Your task to perform on an android device: What's the news today? Image 0: 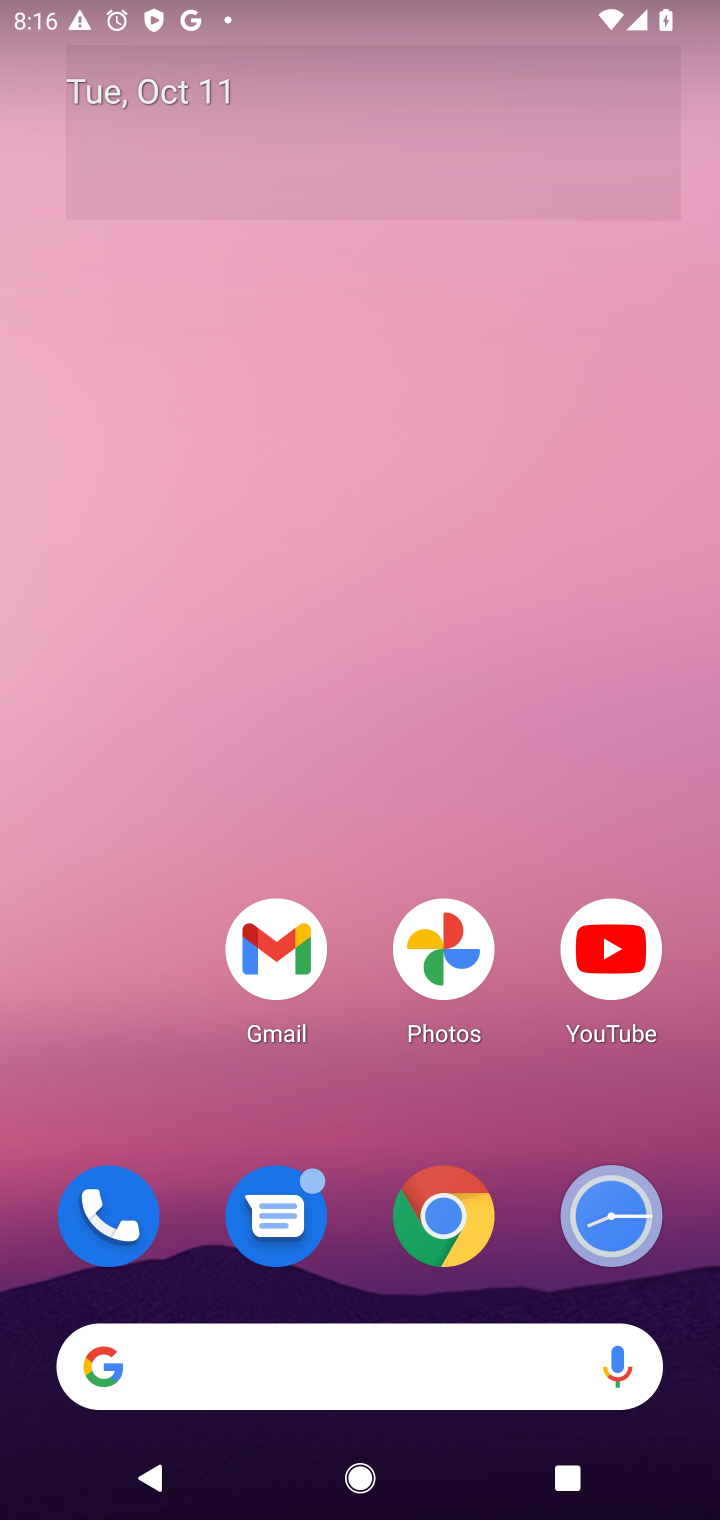
Step 0: click (434, 1238)
Your task to perform on an android device: What's the news today? Image 1: 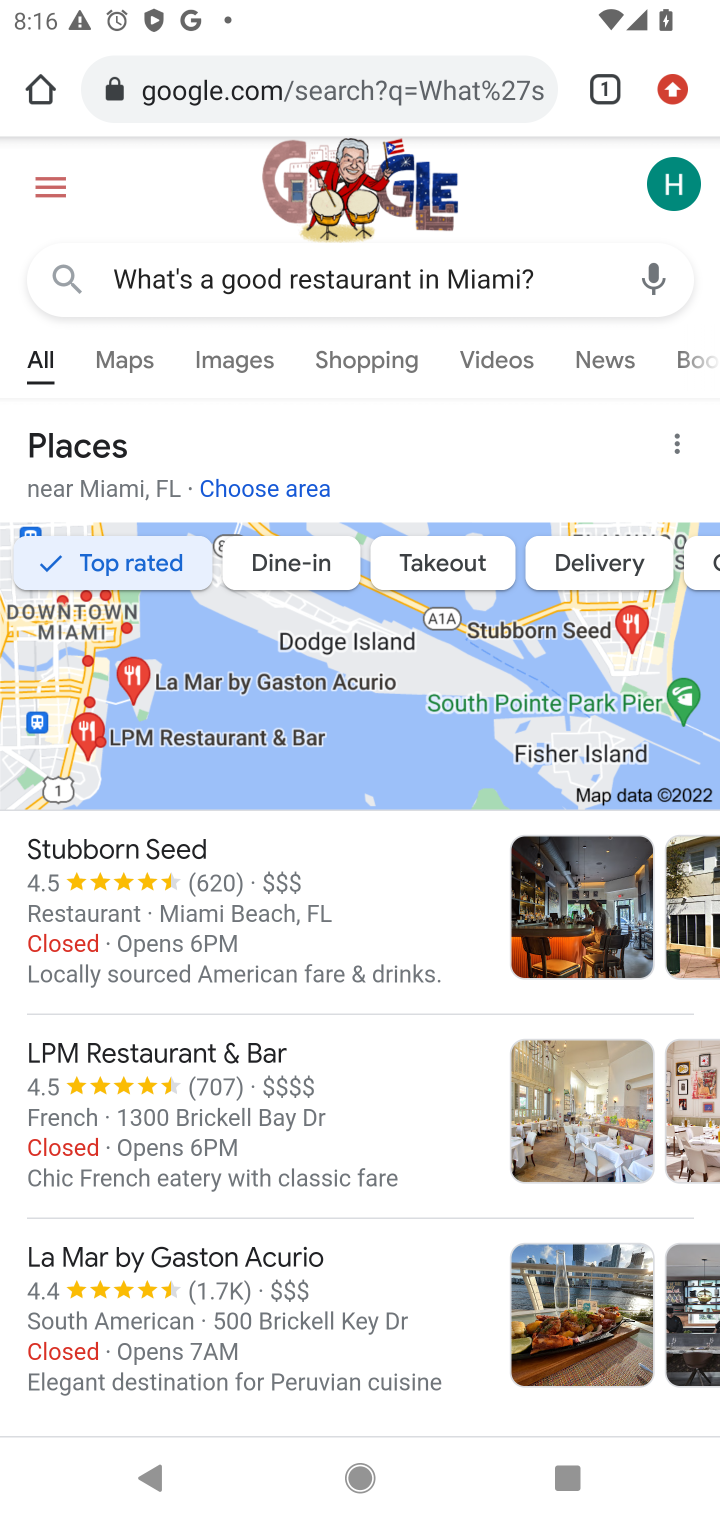
Step 1: click (569, 247)
Your task to perform on an android device: What's the news today? Image 2: 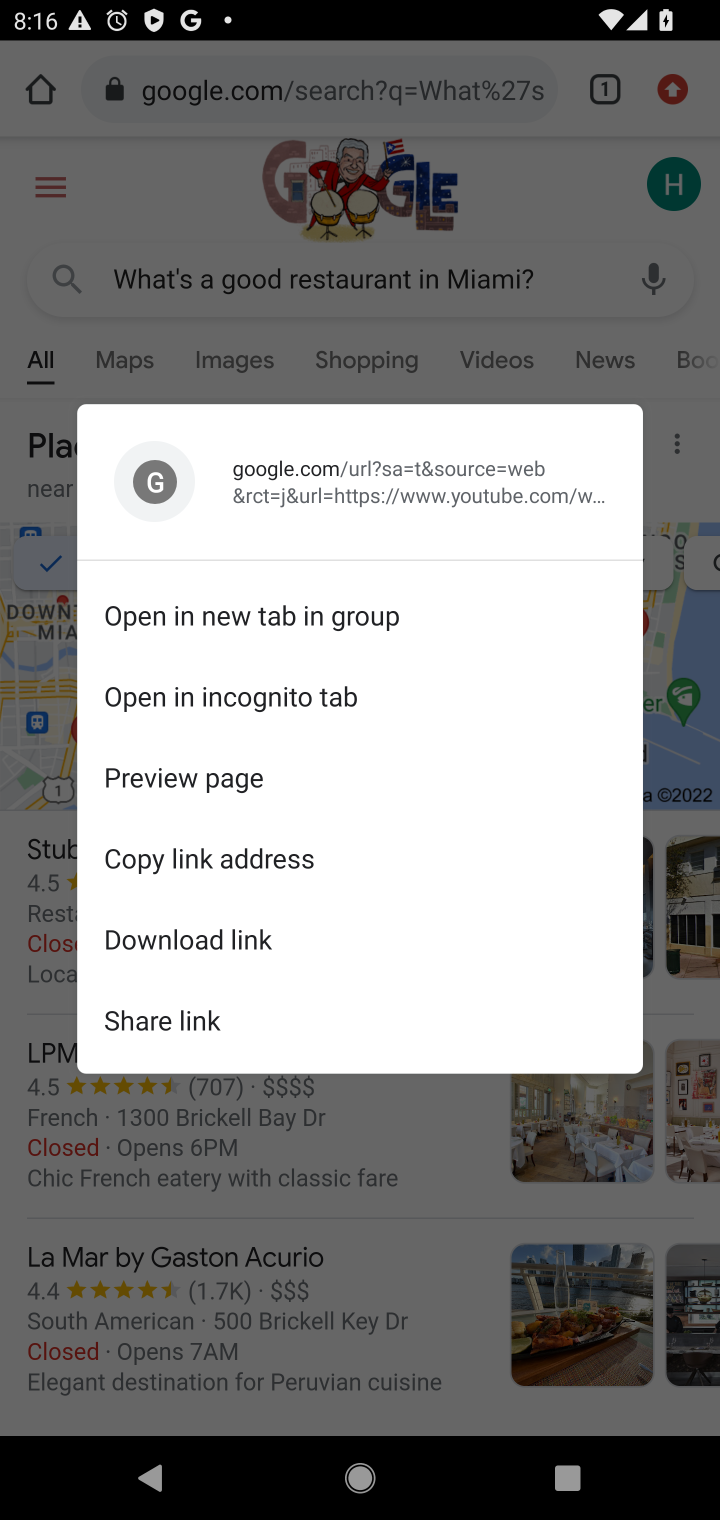
Step 2: click (578, 288)
Your task to perform on an android device: What's the news today? Image 3: 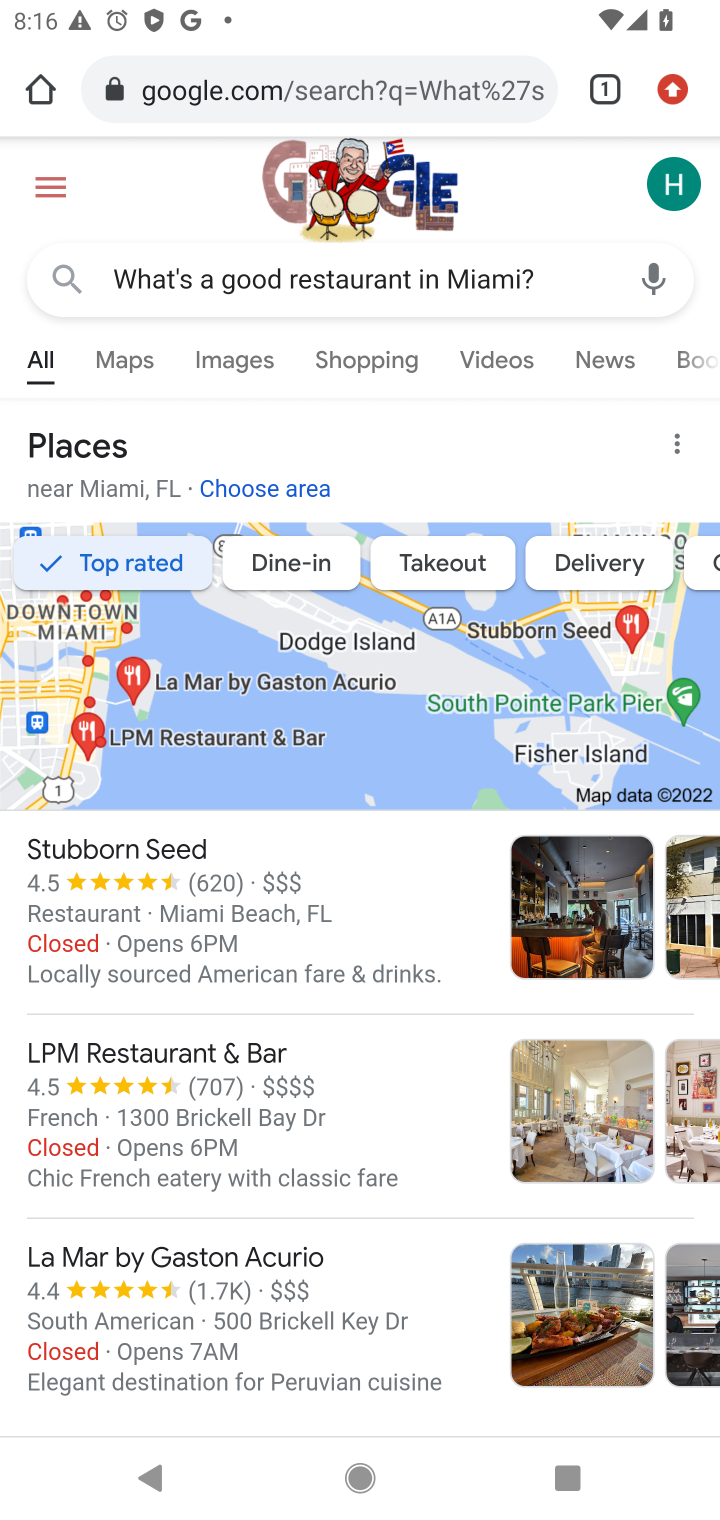
Step 3: click (578, 288)
Your task to perform on an android device: What's the news today? Image 4: 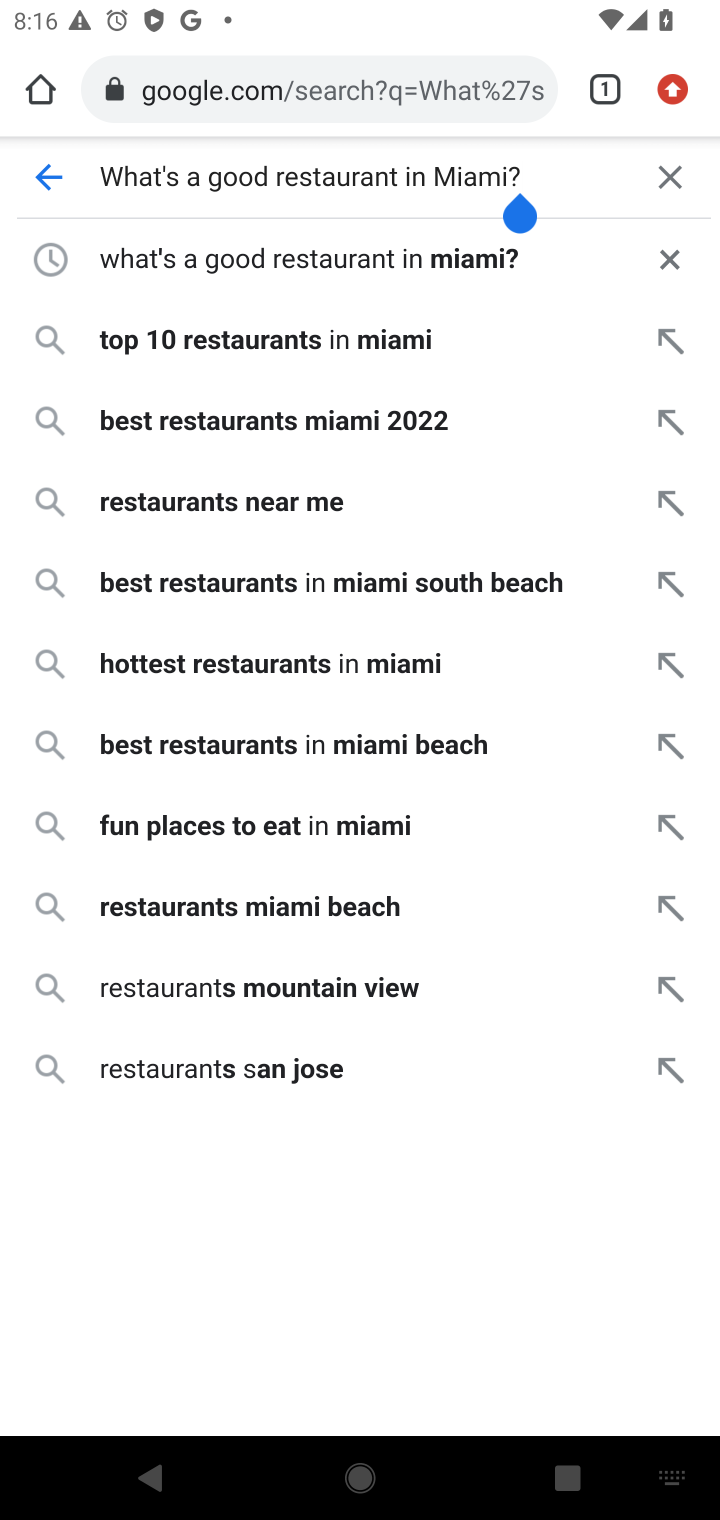
Step 4: click (675, 183)
Your task to perform on an android device: What's the news today? Image 5: 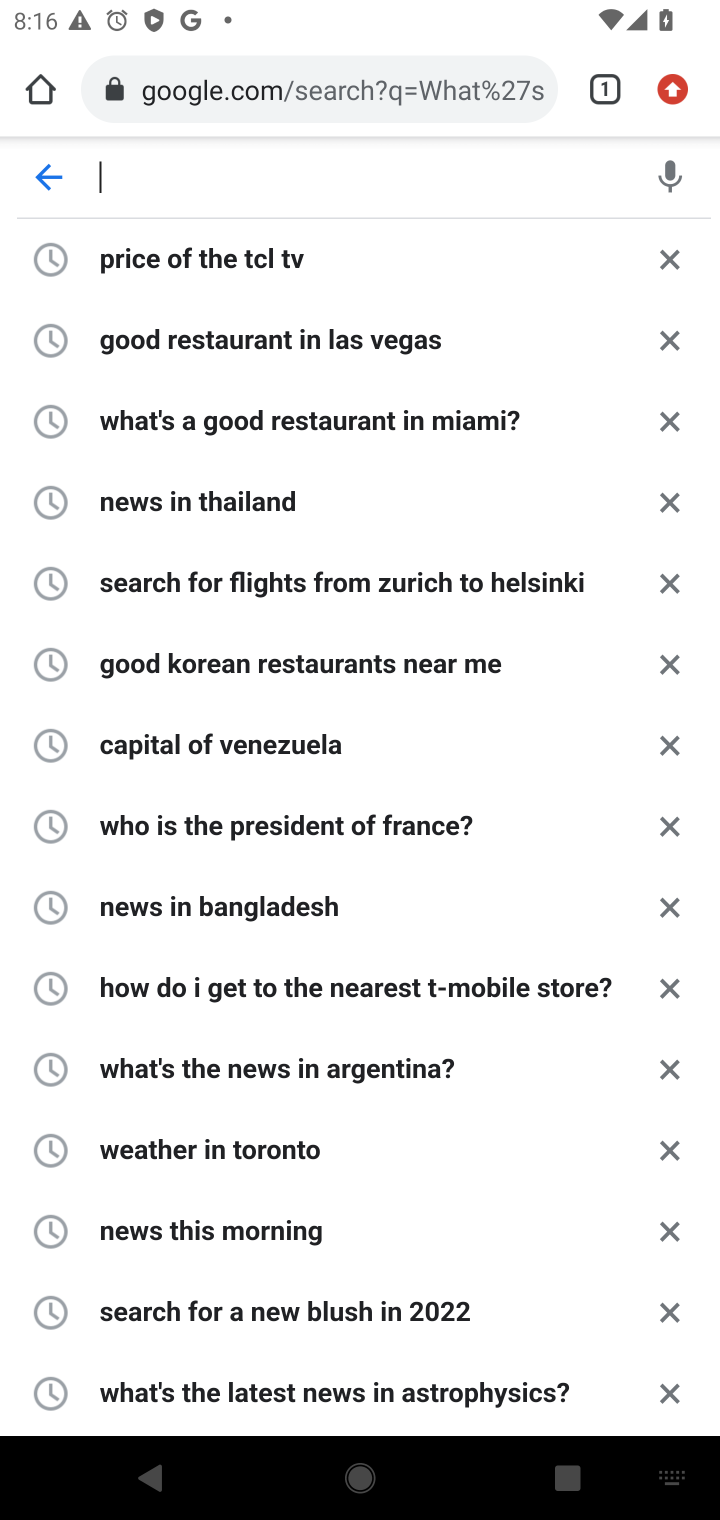
Step 5: type "news today"
Your task to perform on an android device: What's the news today? Image 6: 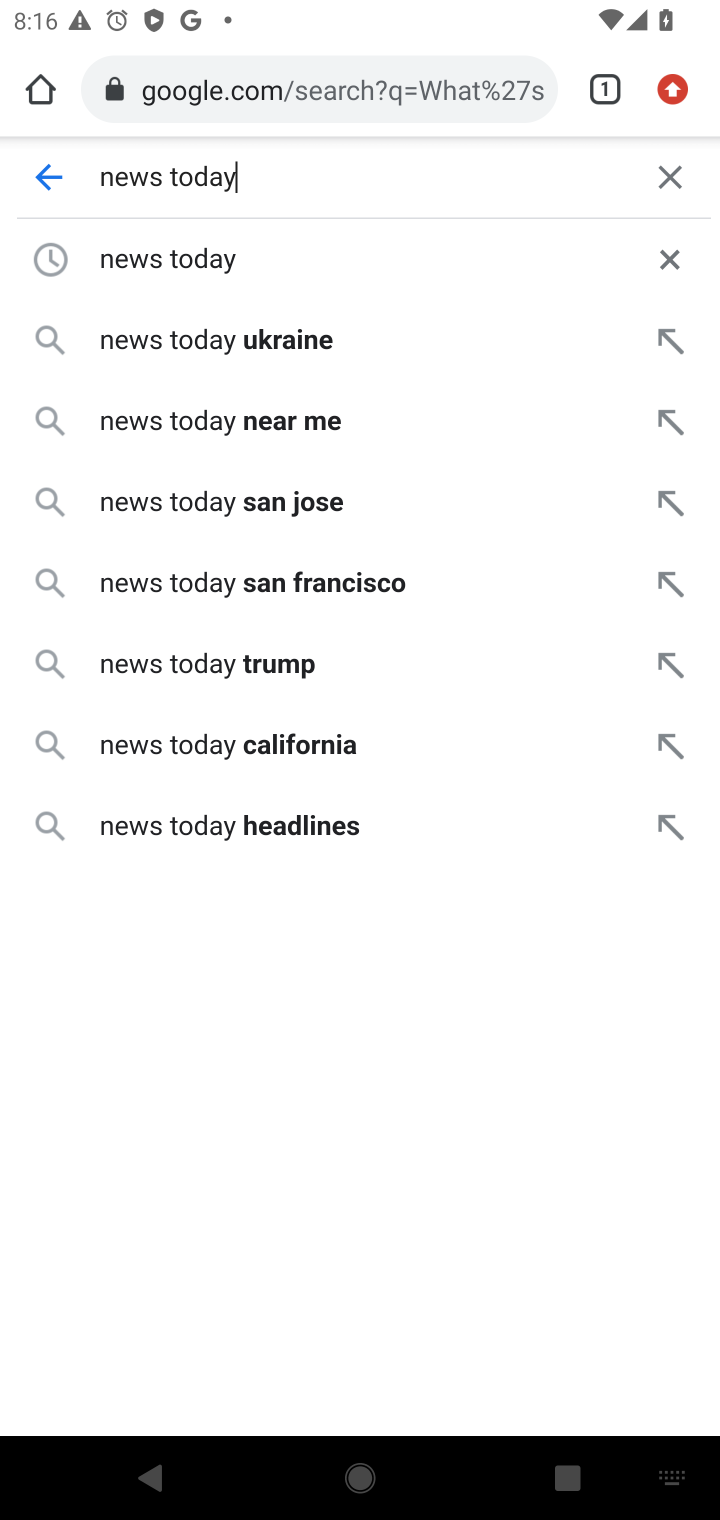
Step 6: press enter
Your task to perform on an android device: What's the news today? Image 7: 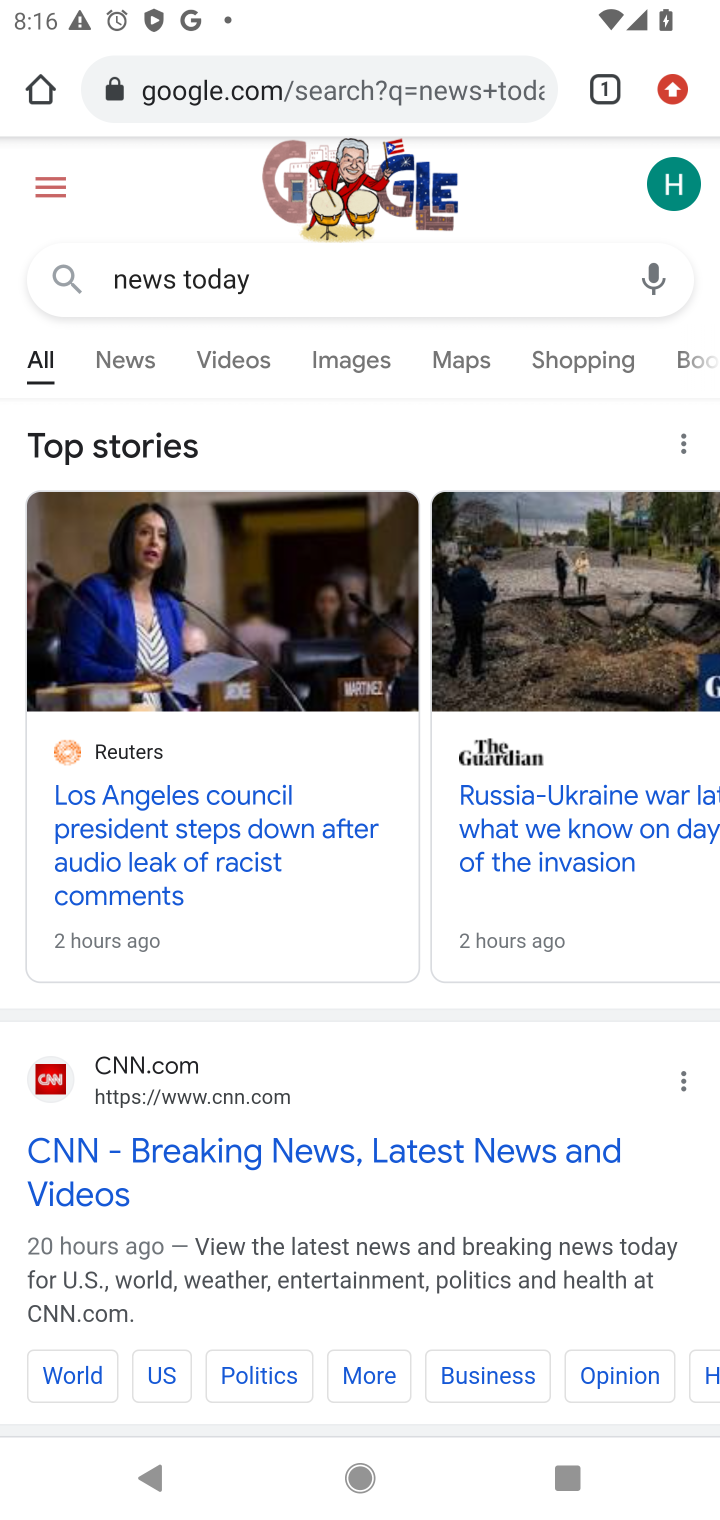
Step 7: click (135, 381)
Your task to perform on an android device: What's the news today? Image 8: 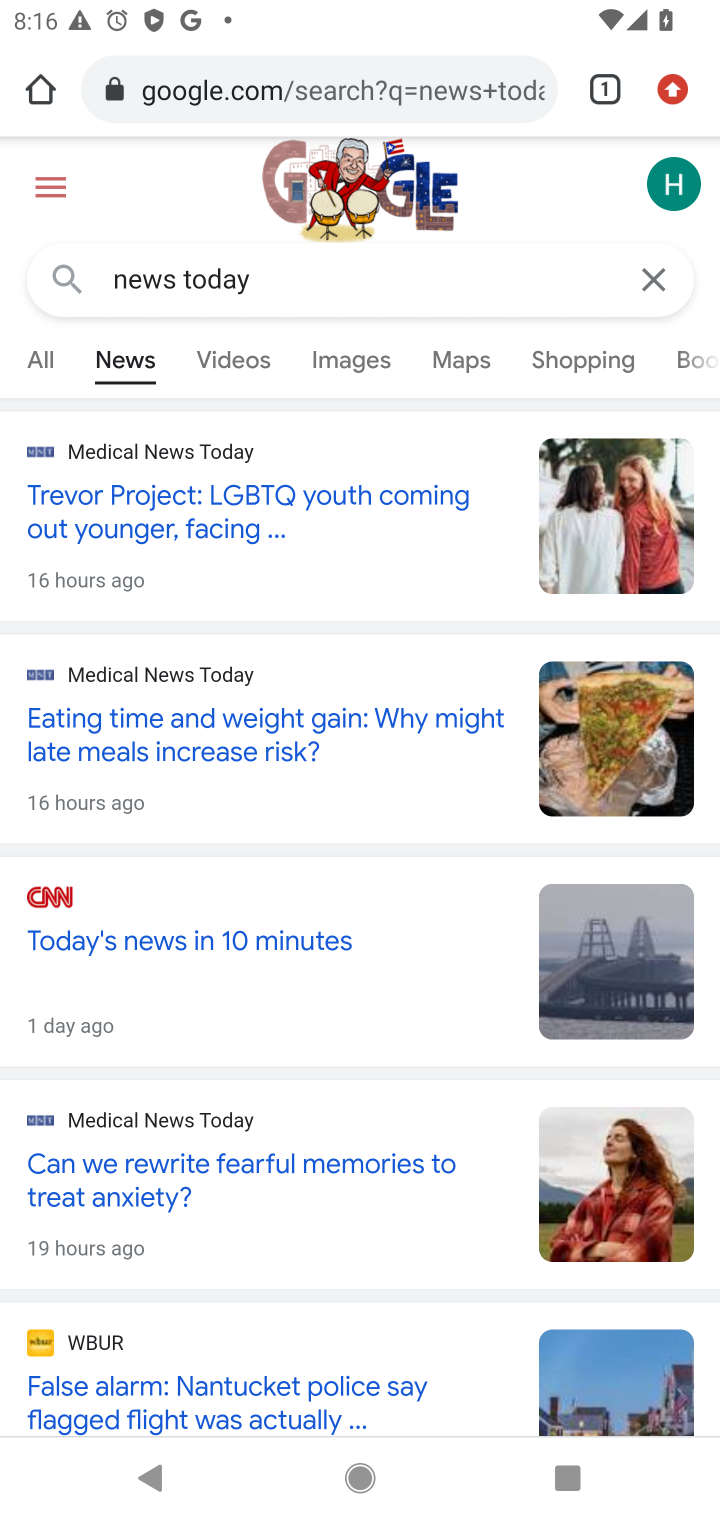
Step 8: task complete